Your task to perform on an android device: Go to wifi settings Image 0: 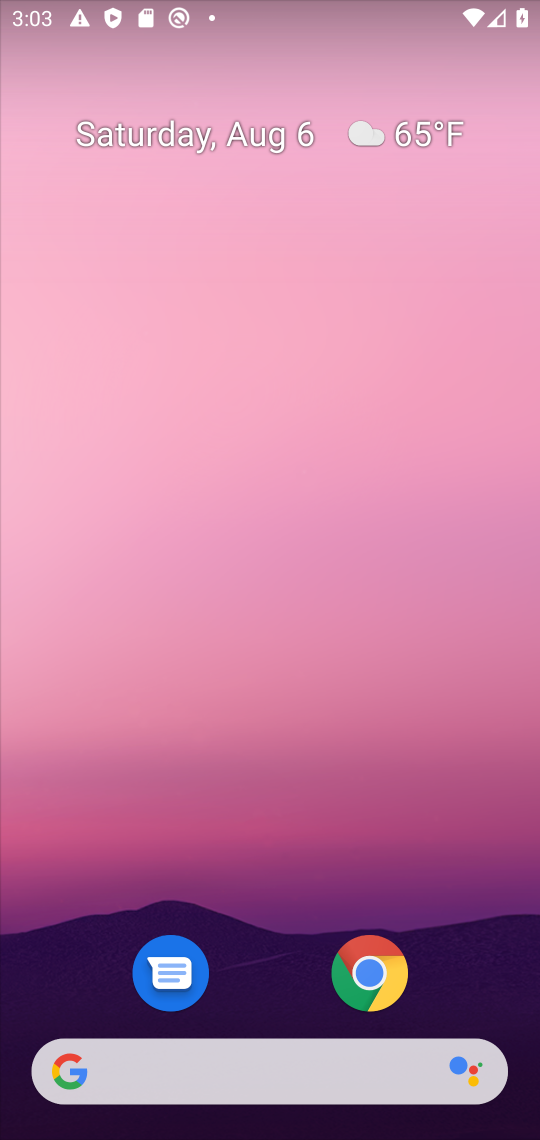
Step 0: drag from (269, 959) to (288, 117)
Your task to perform on an android device: Go to wifi settings Image 1: 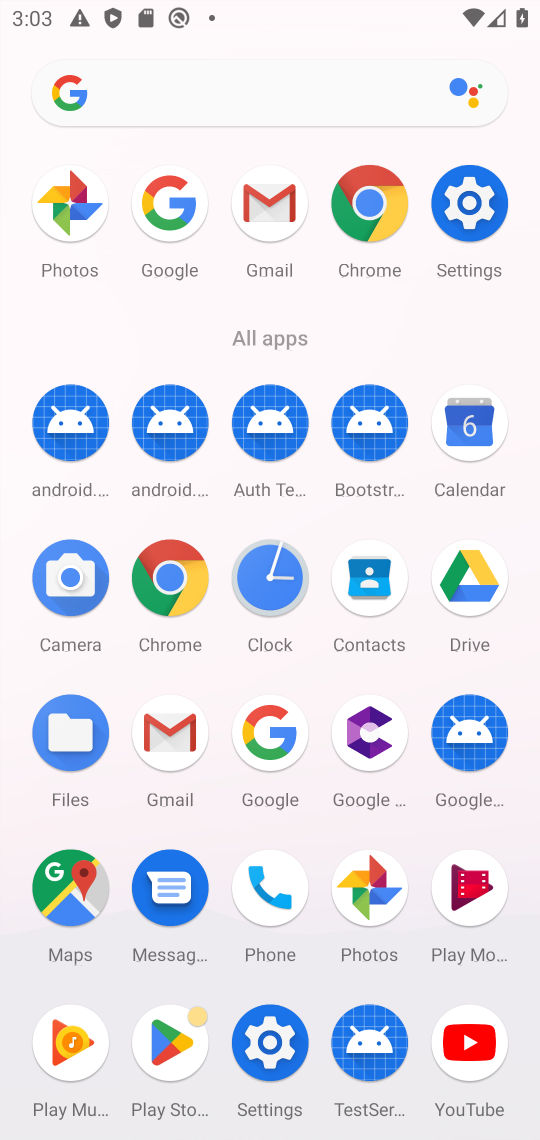
Step 1: click (474, 191)
Your task to perform on an android device: Go to wifi settings Image 2: 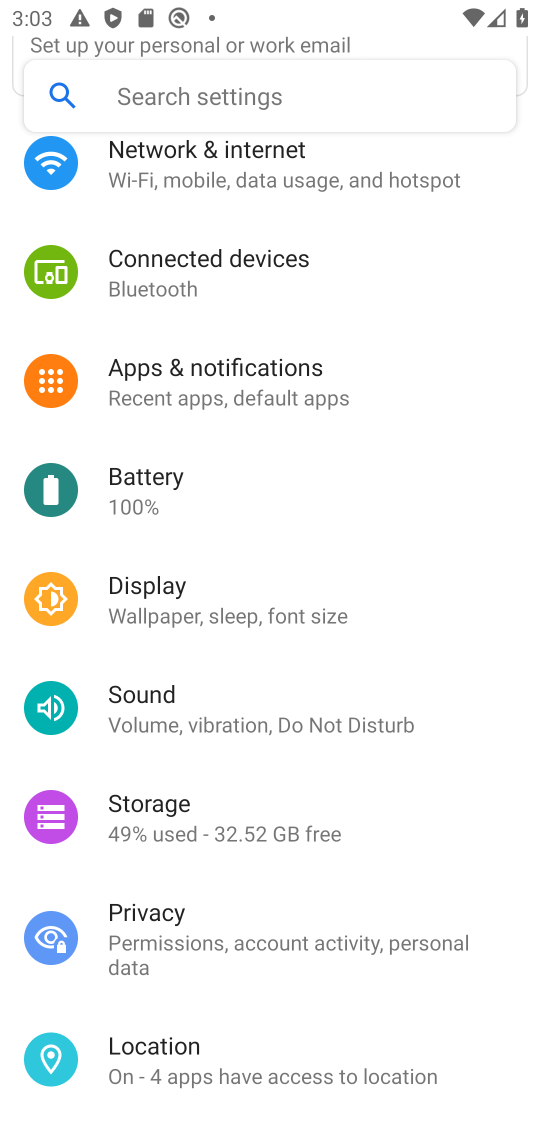
Step 2: click (260, 183)
Your task to perform on an android device: Go to wifi settings Image 3: 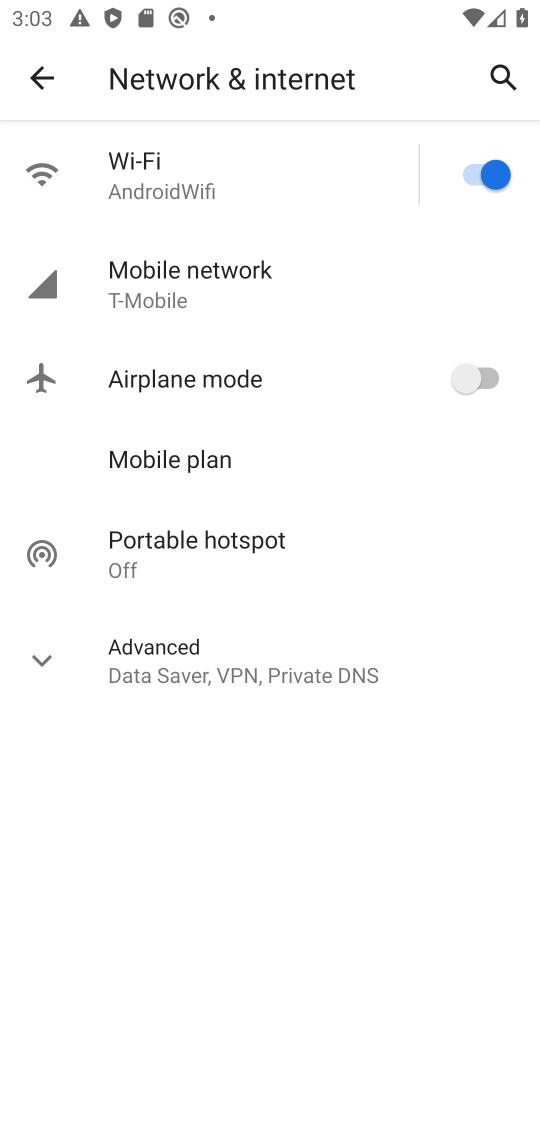
Step 3: click (222, 179)
Your task to perform on an android device: Go to wifi settings Image 4: 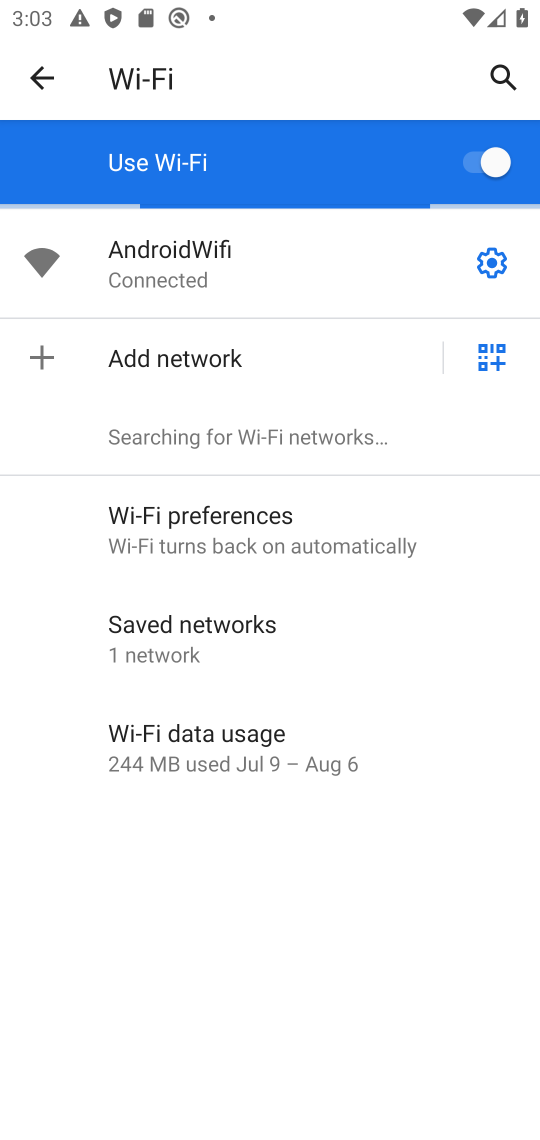
Step 4: task complete